Your task to perform on an android device: set the timer Image 0: 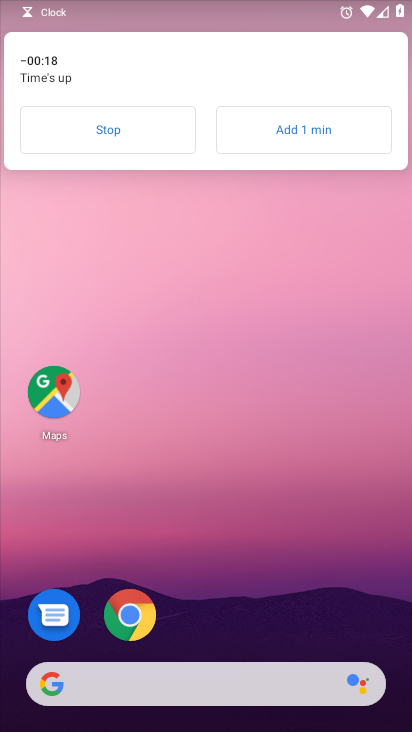
Step 0: drag from (205, 624) to (158, 252)
Your task to perform on an android device: set the timer Image 1: 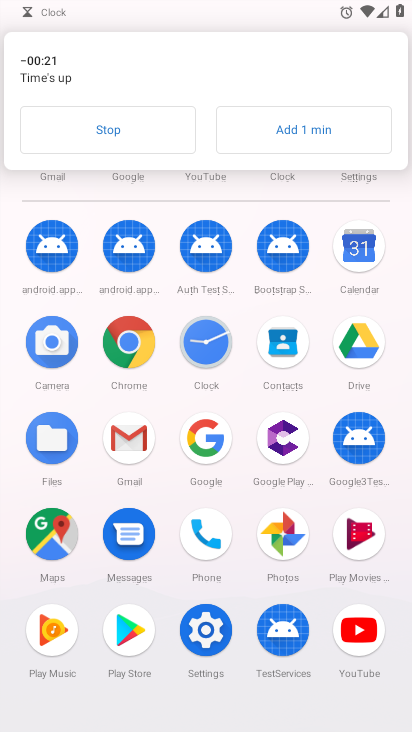
Step 1: click (115, 136)
Your task to perform on an android device: set the timer Image 2: 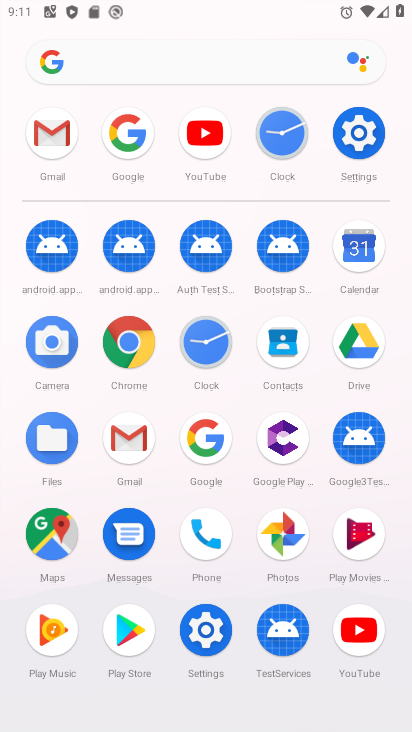
Step 2: click (267, 128)
Your task to perform on an android device: set the timer Image 3: 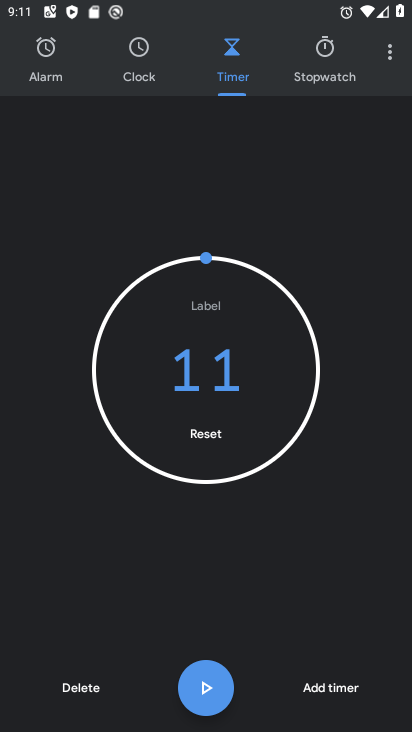
Step 3: click (215, 670)
Your task to perform on an android device: set the timer Image 4: 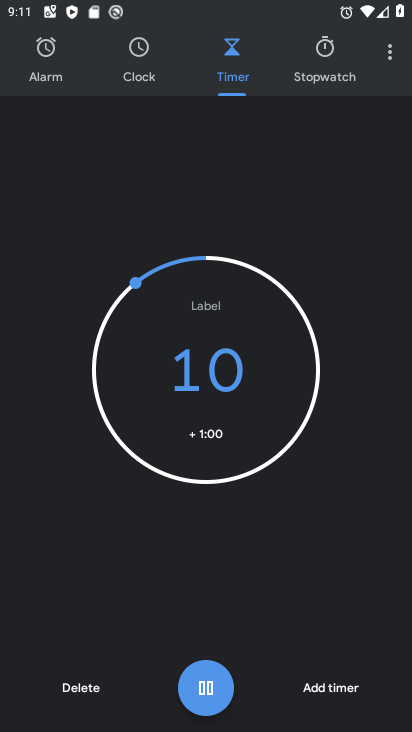
Step 4: task complete